Your task to perform on an android device: Play the last video I watched on Youtube Image 0: 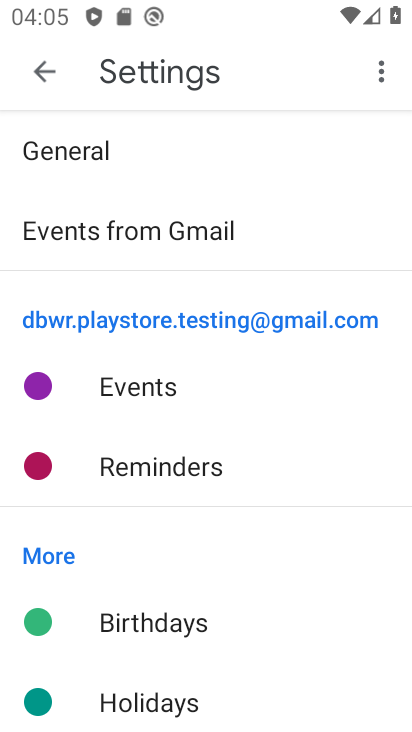
Step 0: press home button
Your task to perform on an android device: Play the last video I watched on Youtube Image 1: 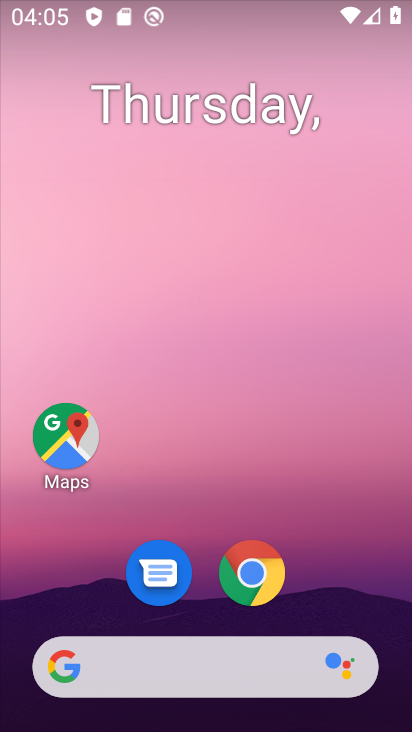
Step 1: drag from (393, 638) to (295, 148)
Your task to perform on an android device: Play the last video I watched on Youtube Image 2: 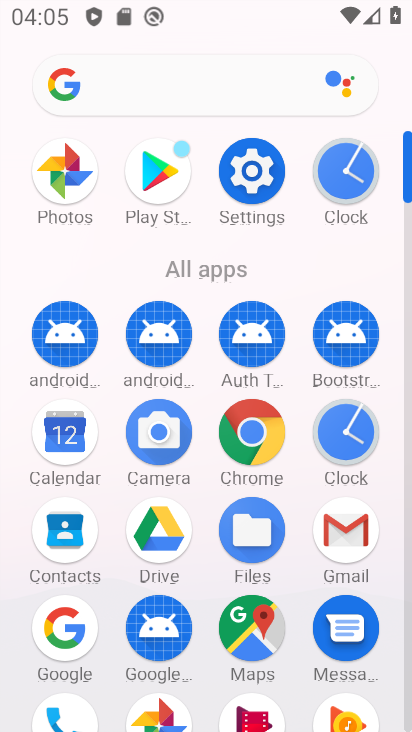
Step 2: click (407, 698)
Your task to perform on an android device: Play the last video I watched on Youtube Image 3: 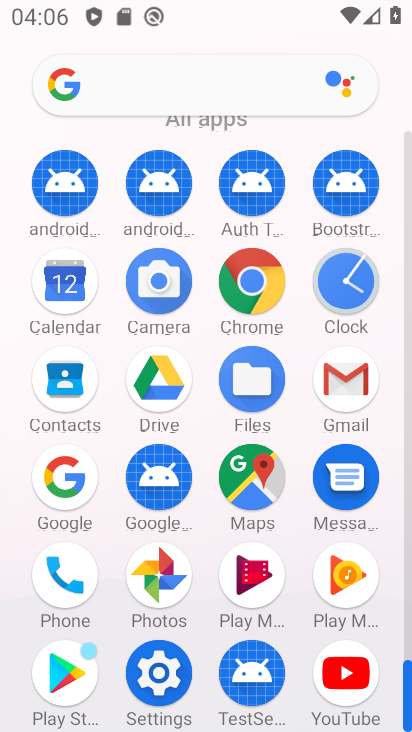
Step 3: click (349, 674)
Your task to perform on an android device: Play the last video I watched on Youtube Image 4: 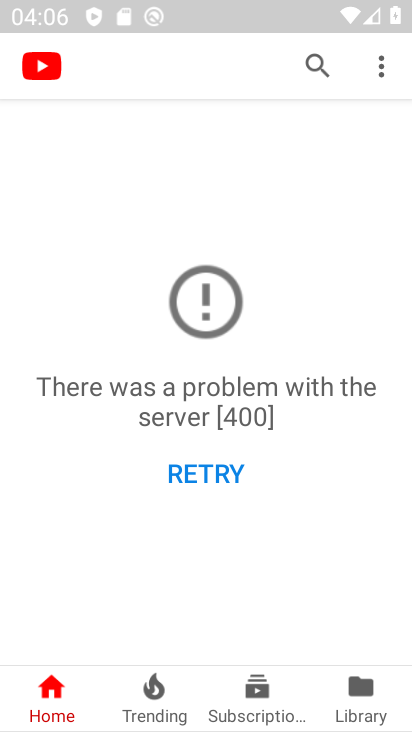
Step 4: click (360, 690)
Your task to perform on an android device: Play the last video I watched on Youtube Image 5: 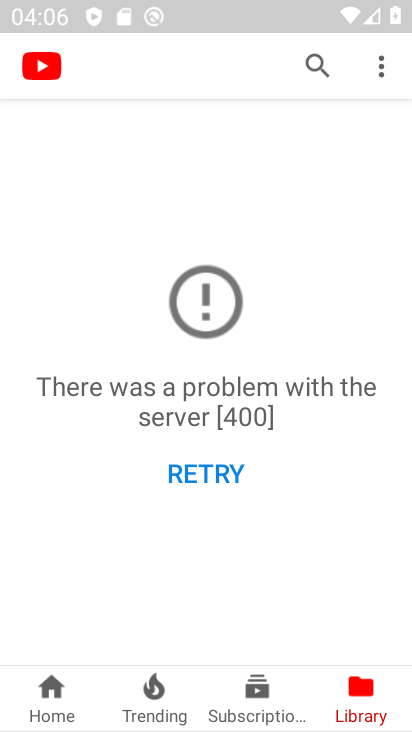
Step 5: click (183, 463)
Your task to perform on an android device: Play the last video I watched on Youtube Image 6: 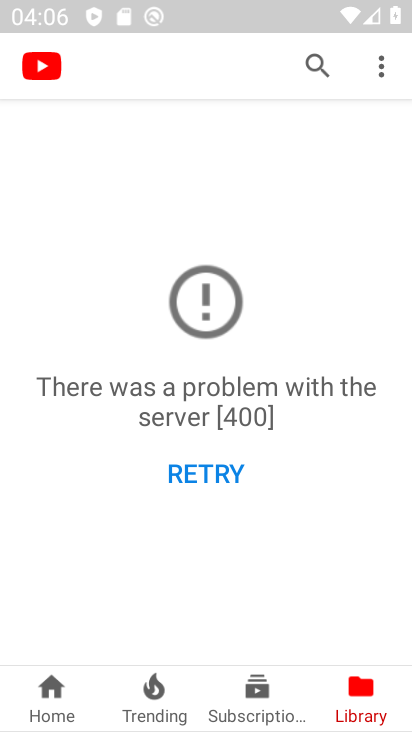
Step 6: task complete